Your task to perform on an android device: delete a single message in the gmail app Image 0: 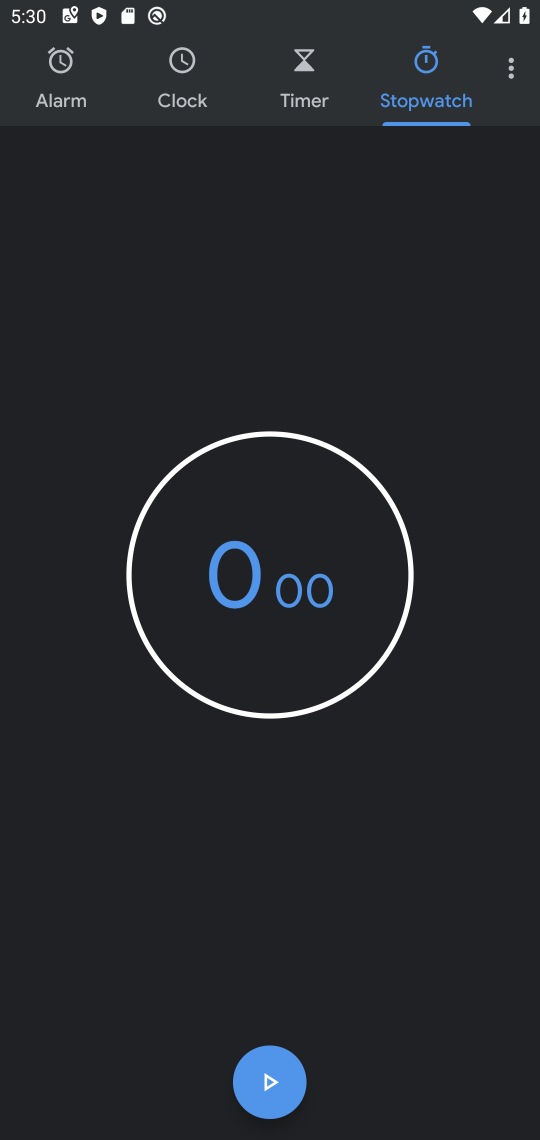
Step 0: press home button
Your task to perform on an android device: delete a single message in the gmail app Image 1: 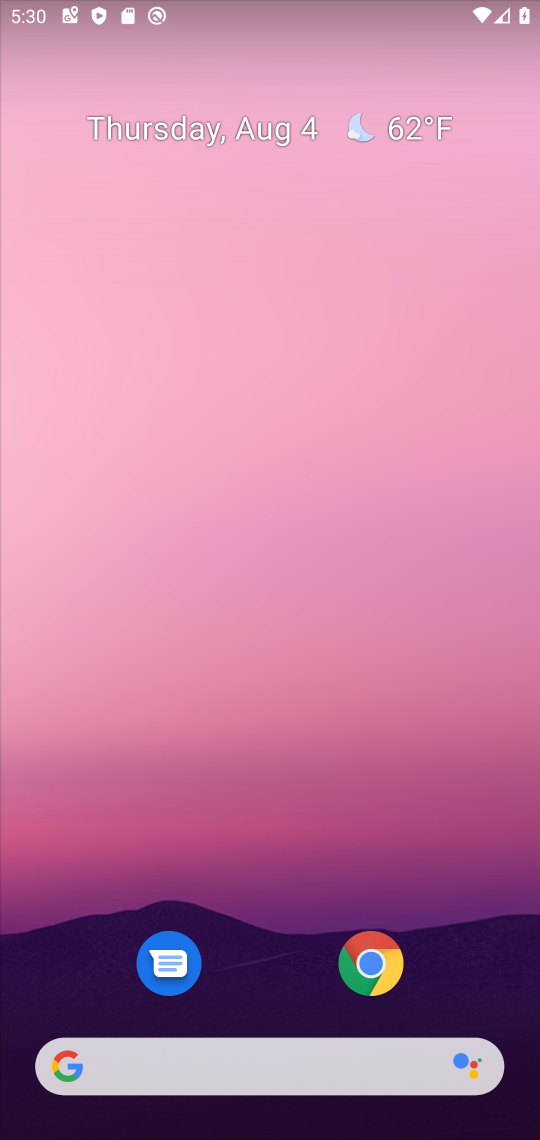
Step 1: drag from (290, 857) to (282, 154)
Your task to perform on an android device: delete a single message in the gmail app Image 2: 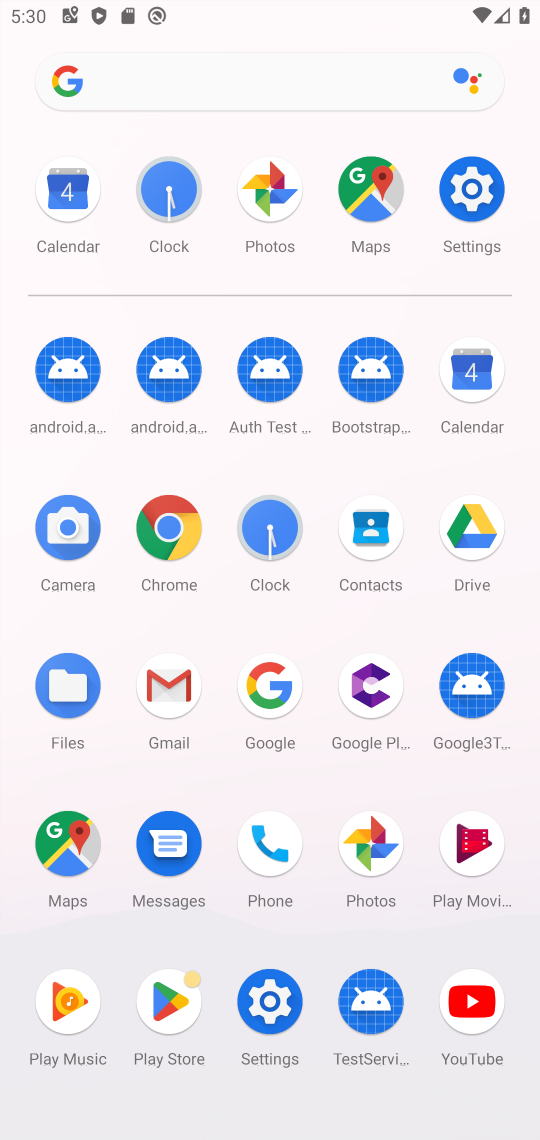
Step 2: click (170, 701)
Your task to perform on an android device: delete a single message in the gmail app Image 3: 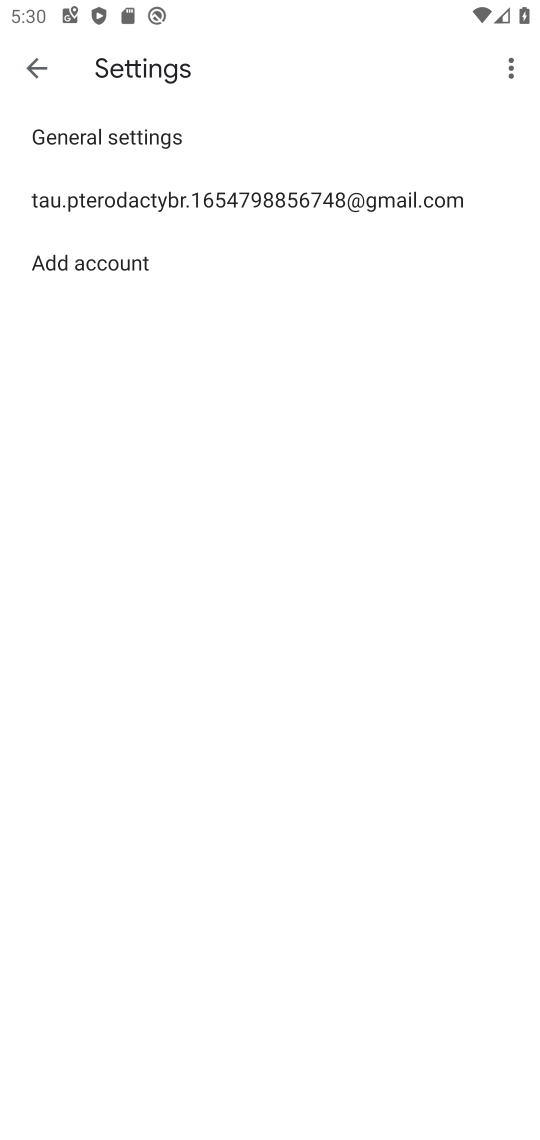
Step 3: click (32, 70)
Your task to perform on an android device: delete a single message in the gmail app Image 4: 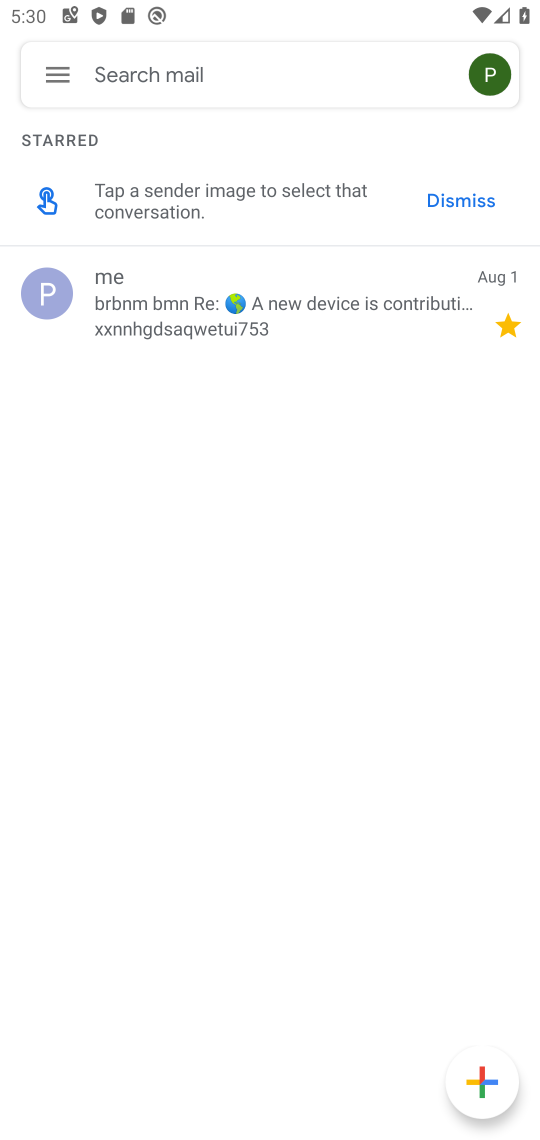
Step 4: click (263, 290)
Your task to perform on an android device: delete a single message in the gmail app Image 5: 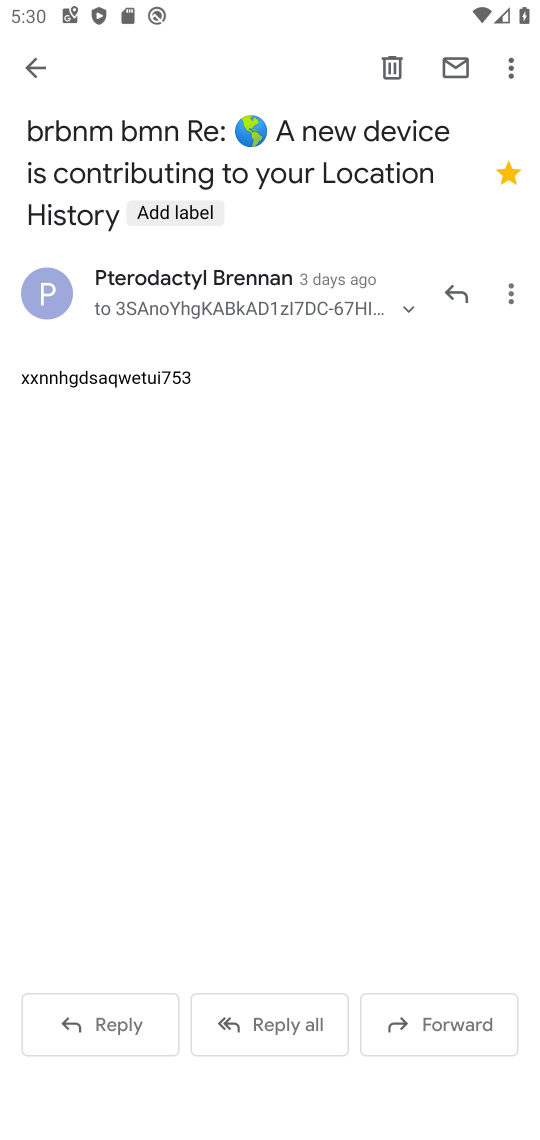
Step 5: click (396, 70)
Your task to perform on an android device: delete a single message in the gmail app Image 6: 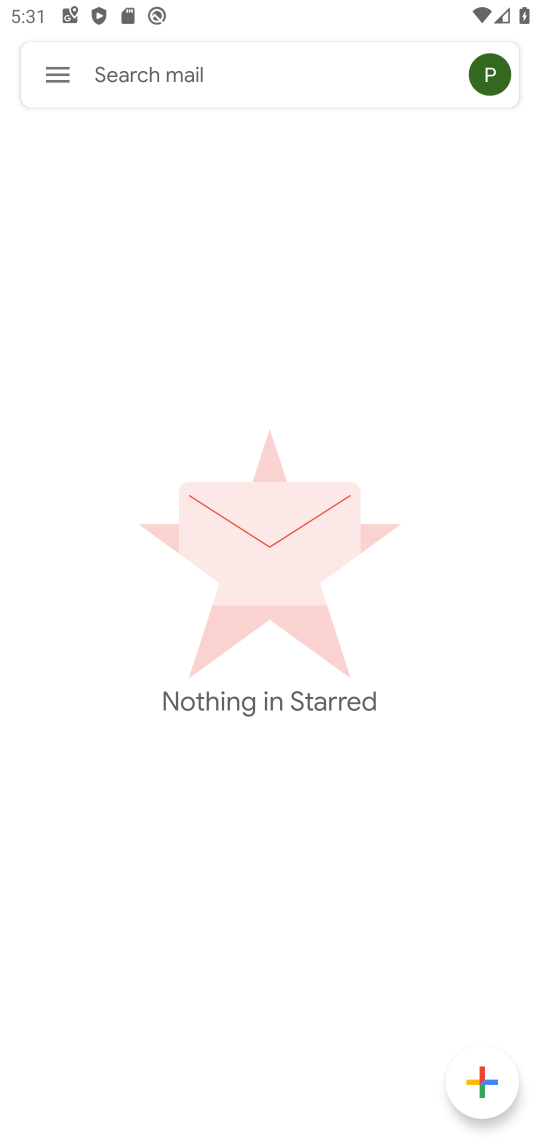
Step 6: task complete